Your task to perform on an android device: turn off picture-in-picture Image 0: 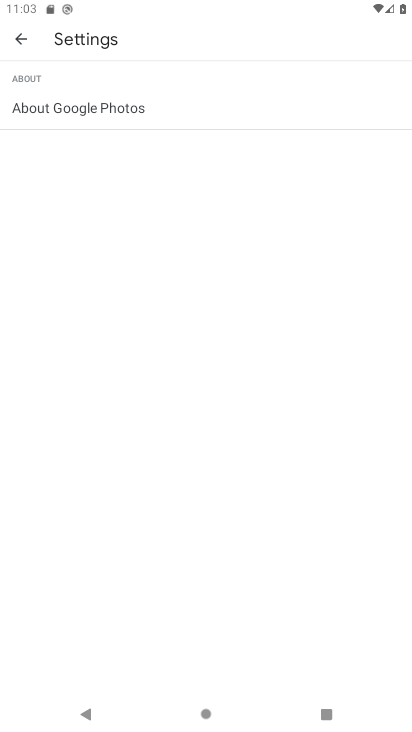
Step 0: press home button
Your task to perform on an android device: turn off picture-in-picture Image 1: 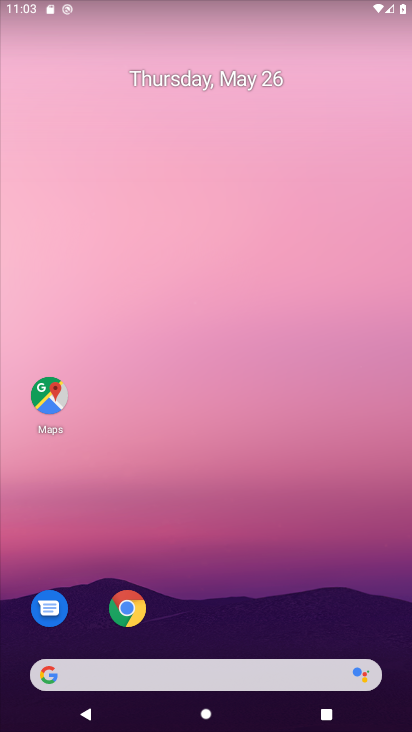
Step 1: click (117, 607)
Your task to perform on an android device: turn off picture-in-picture Image 2: 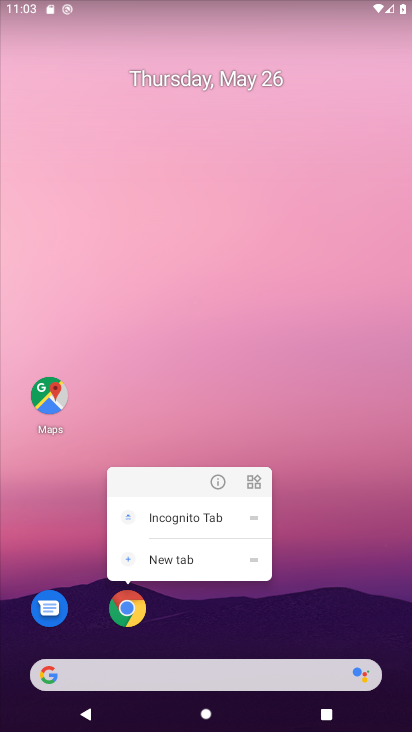
Step 2: click (217, 480)
Your task to perform on an android device: turn off picture-in-picture Image 3: 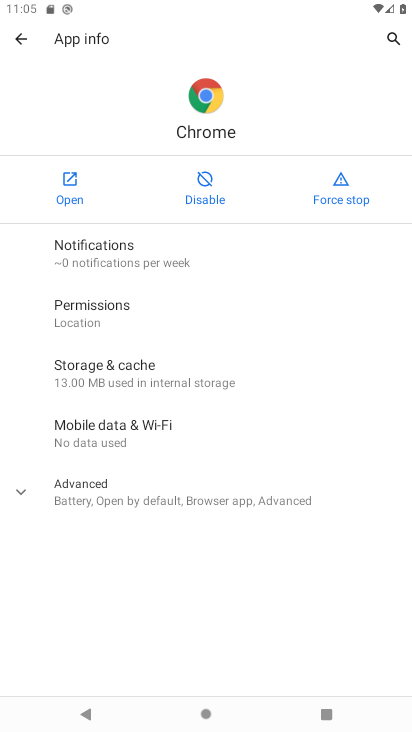
Step 3: click (18, 493)
Your task to perform on an android device: turn off picture-in-picture Image 4: 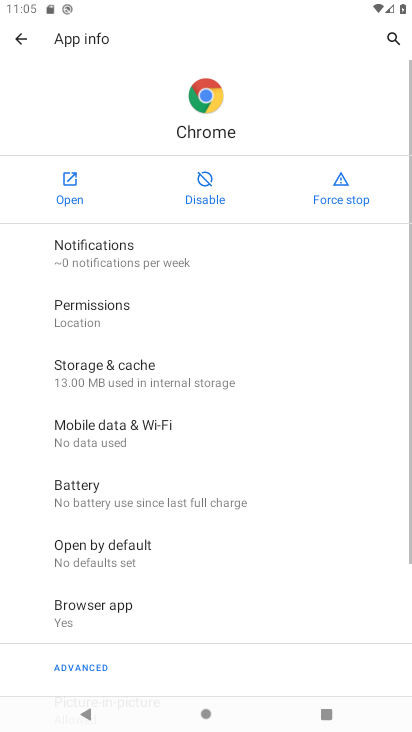
Step 4: drag from (310, 507) to (304, 260)
Your task to perform on an android device: turn off picture-in-picture Image 5: 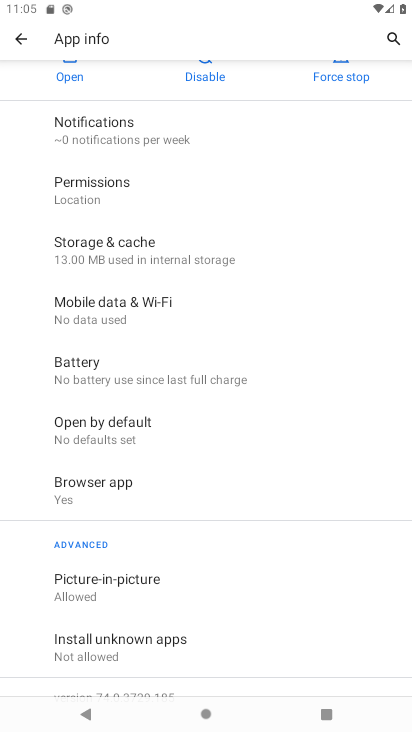
Step 5: click (85, 587)
Your task to perform on an android device: turn off picture-in-picture Image 6: 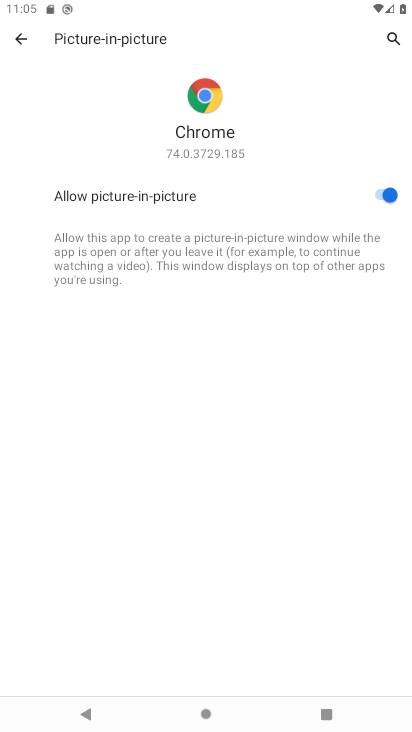
Step 6: click (380, 195)
Your task to perform on an android device: turn off picture-in-picture Image 7: 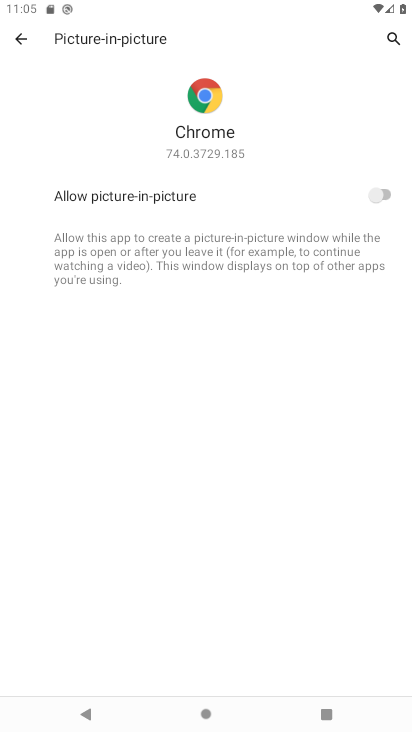
Step 7: task complete